Your task to perform on an android device: Open internet settings Image 0: 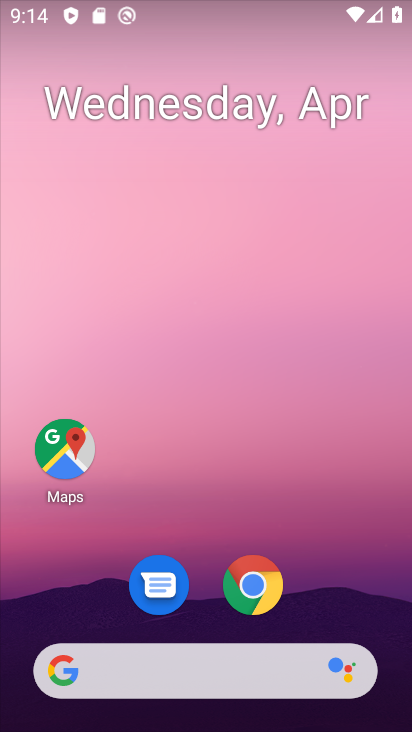
Step 0: drag from (360, 413) to (374, 62)
Your task to perform on an android device: Open internet settings Image 1: 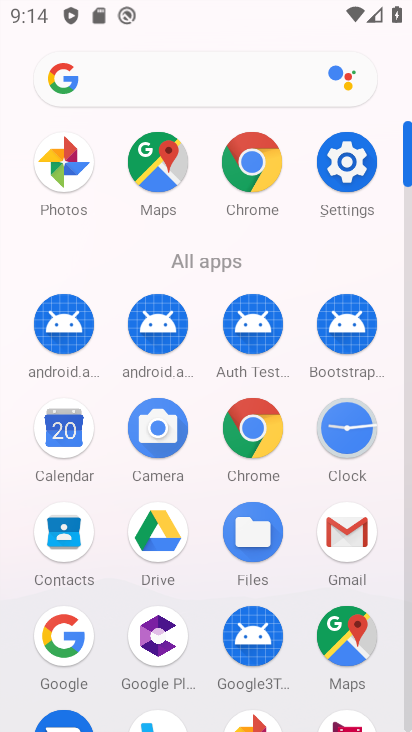
Step 1: click (344, 153)
Your task to perform on an android device: Open internet settings Image 2: 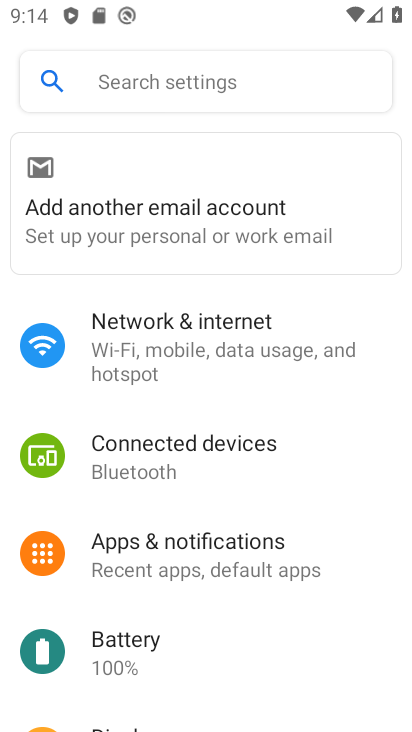
Step 2: click (258, 335)
Your task to perform on an android device: Open internet settings Image 3: 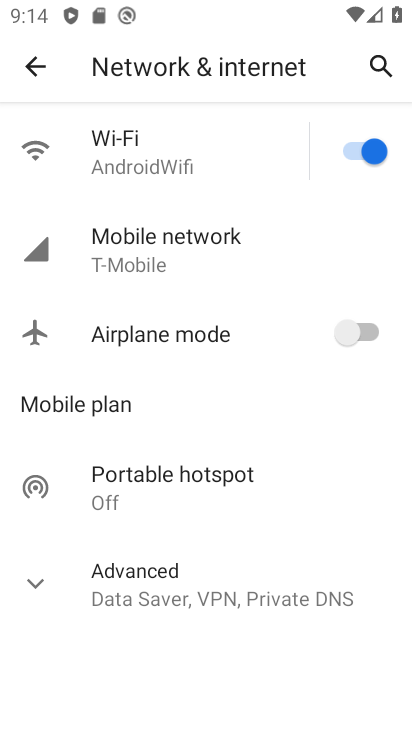
Step 3: task complete